Your task to perform on an android device: Turn off the flashlight Image 0: 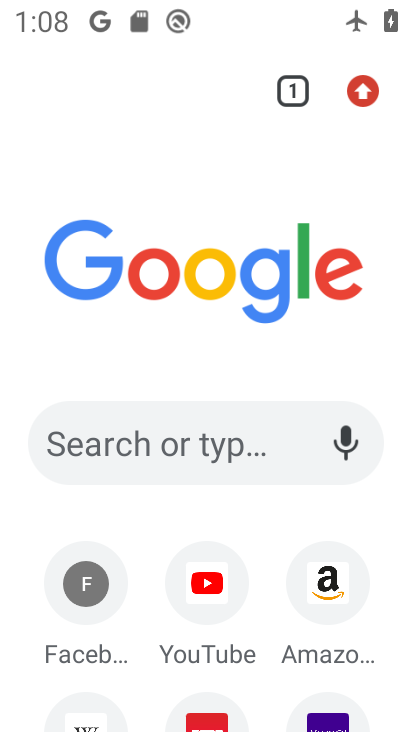
Step 0: press home button
Your task to perform on an android device: Turn off the flashlight Image 1: 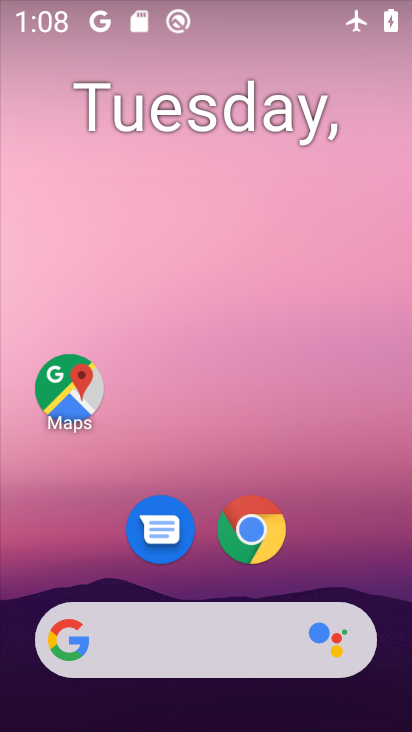
Step 1: drag from (349, 341) to (333, 170)
Your task to perform on an android device: Turn off the flashlight Image 2: 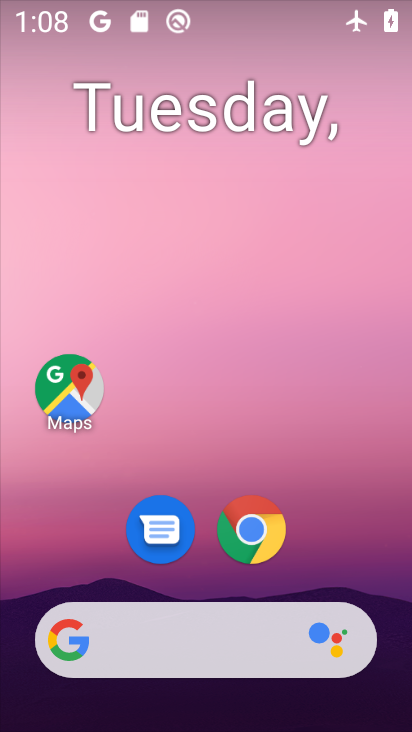
Step 2: drag from (368, 593) to (324, 29)
Your task to perform on an android device: Turn off the flashlight Image 3: 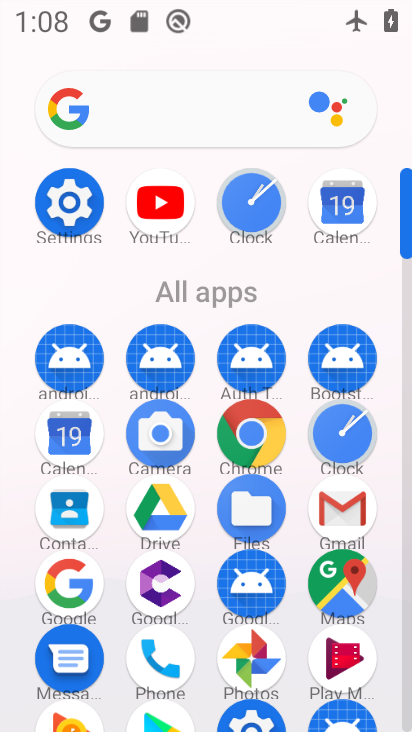
Step 3: click (40, 198)
Your task to perform on an android device: Turn off the flashlight Image 4: 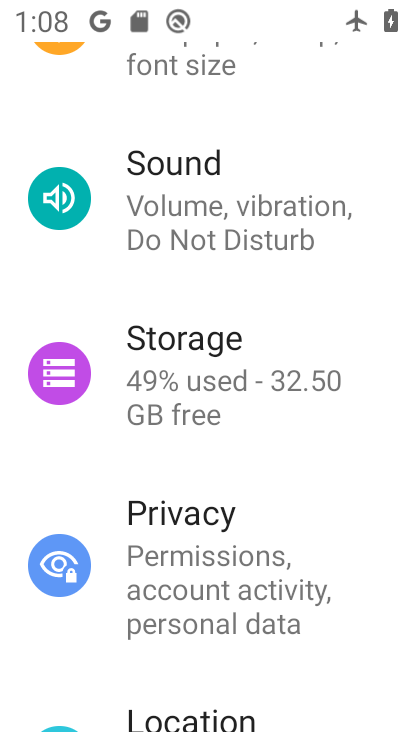
Step 4: task complete